Your task to perform on an android device: check battery use Image 0: 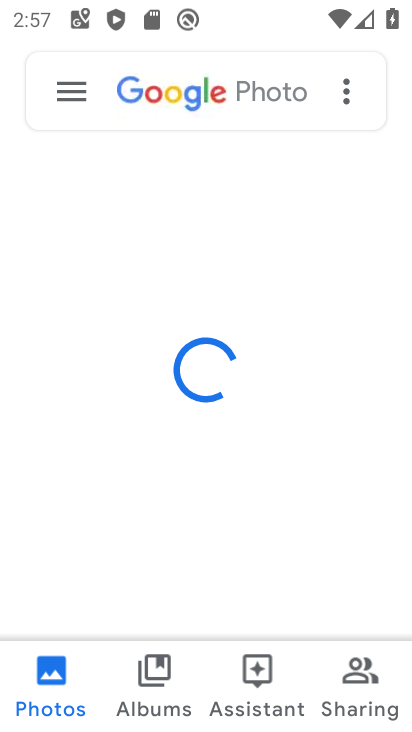
Step 0: press home button
Your task to perform on an android device: check battery use Image 1: 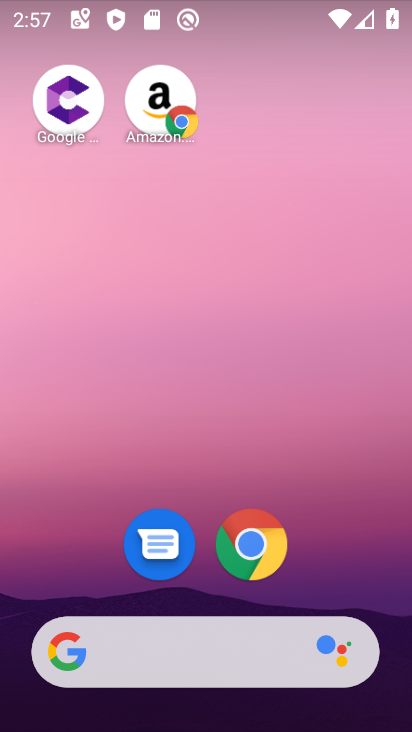
Step 1: drag from (338, 514) to (289, 156)
Your task to perform on an android device: check battery use Image 2: 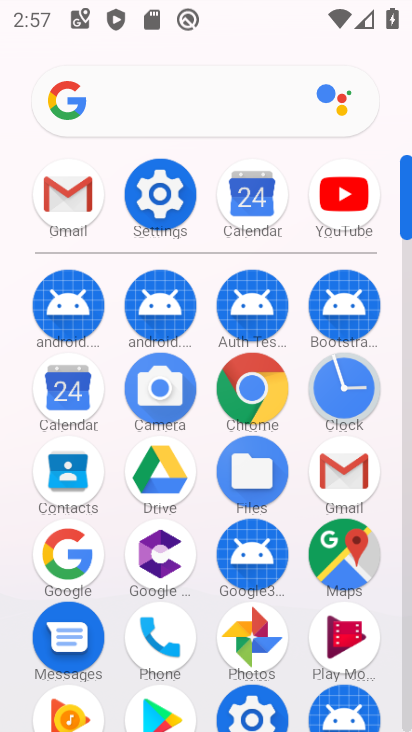
Step 2: click (160, 195)
Your task to perform on an android device: check battery use Image 3: 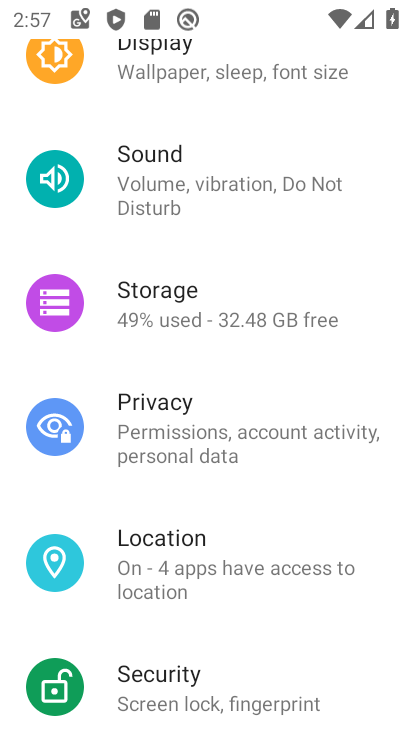
Step 3: drag from (239, 285) to (247, 377)
Your task to perform on an android device: check battery use Image 4: 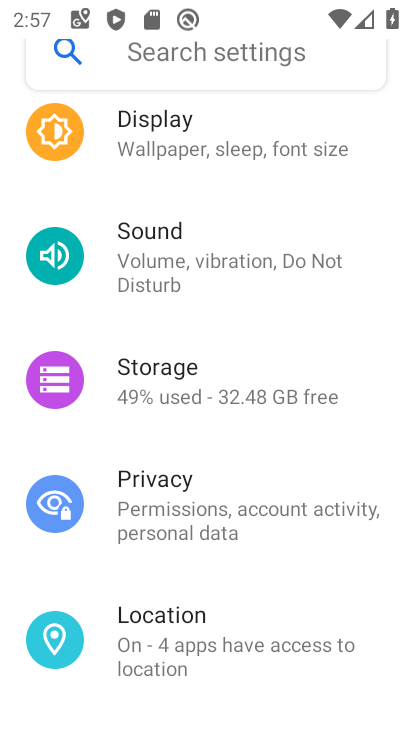
Step 4: drag from (241, 228) to (265, 389)
Your task to perform on an android device: check battery use Image 5: 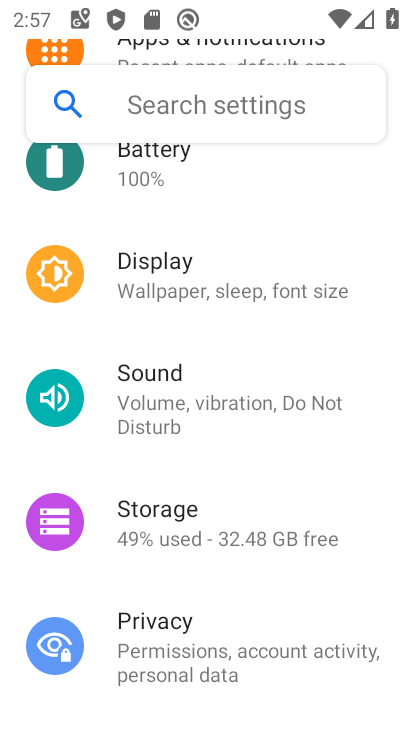
Step 5: drag from (249, 233) to (269, 362)
Your task to perform on an android device: check battery use Image 6: 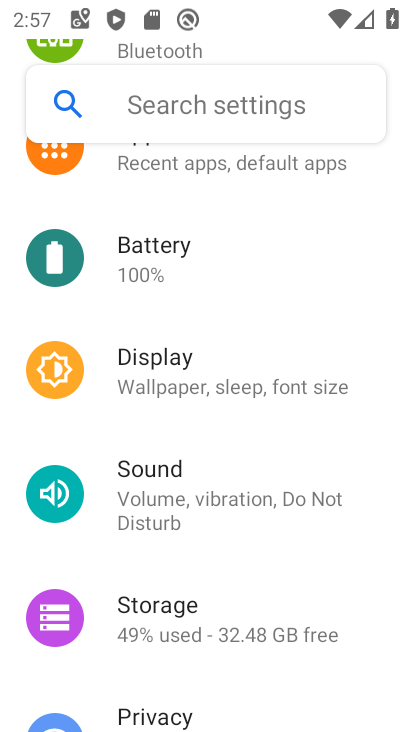
Step 6: click (171, 249)
Your task to perform on an android device: check battery use Image 7: 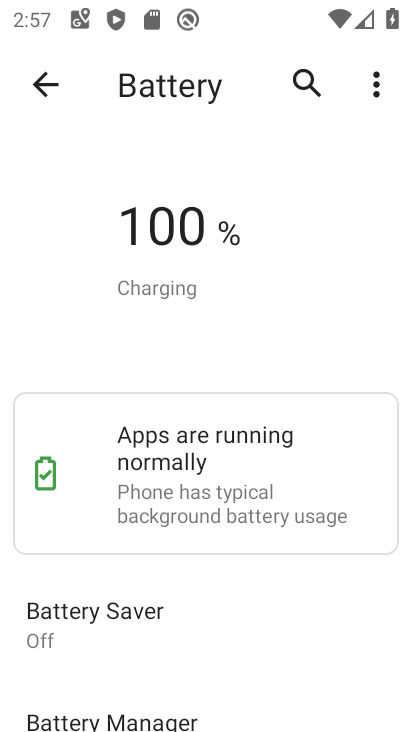
Step 7: click (379, 82)
Your task to perform on an android device: check battery use Image 8: 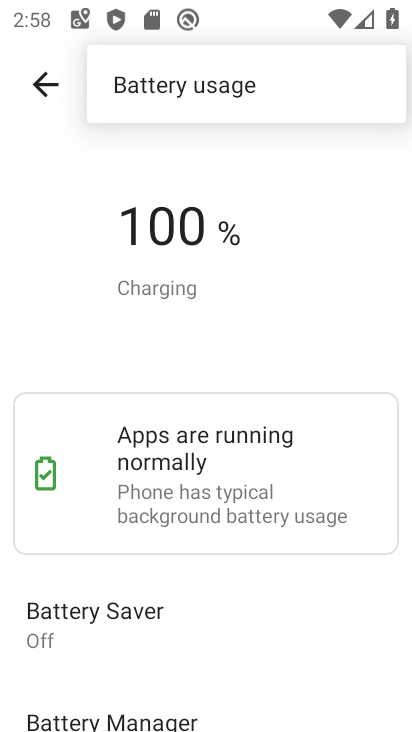
Step 8: click (200, 81)
Your task to perform on an android device: check battery use Image 9: 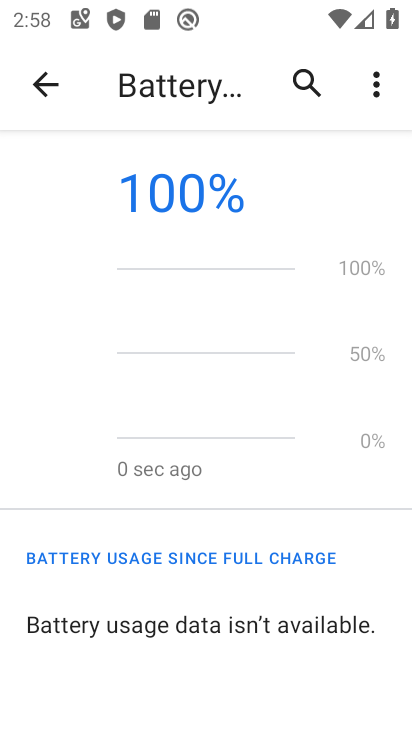
Step 9: task complete